Your task to perform on an android device: Open the phone app and click the voicemail tab. Image 0: 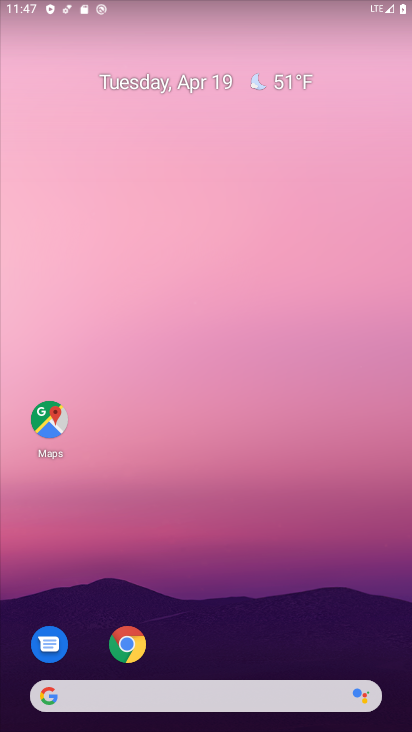
Step 0: click (14, 320)
Your task to perform on an android device: Open the phone app and click the voicemail tab. Image 1: 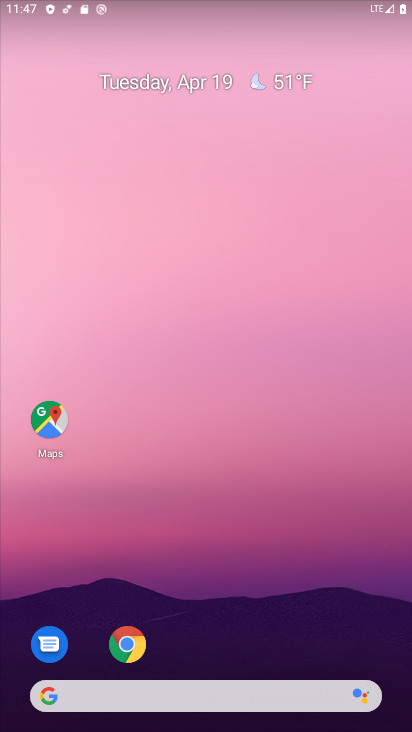
Step 1: drag from (217, 729) to (209, 201)
Your task to perform on an android device: Open the phone app and click the voicemail tab. Image 2: 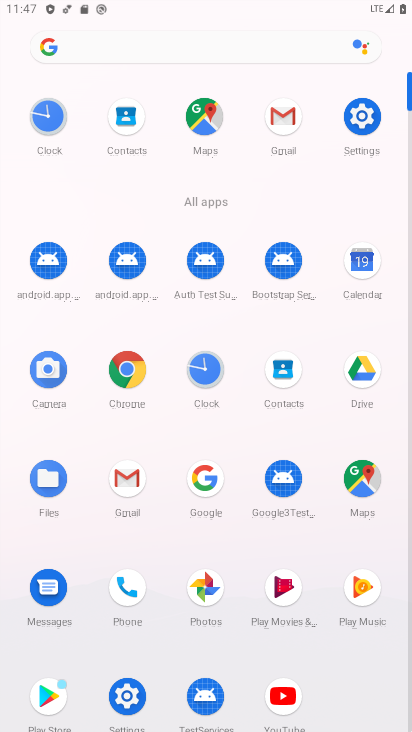
Step 2: click (126, 586)
Your task to perform on an android device: Open the phone app and click the voicemail tab. Image 3: 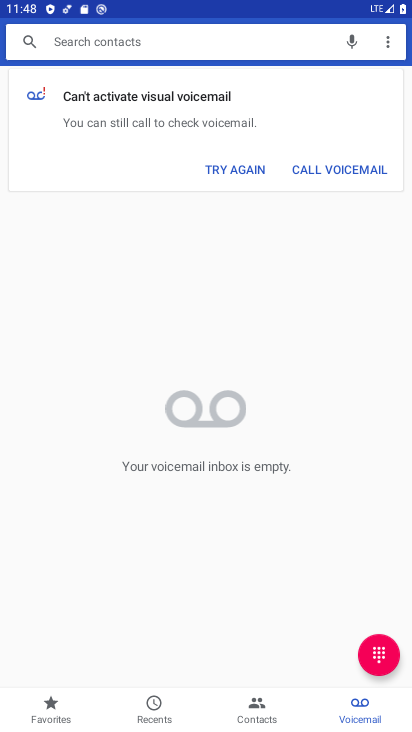
Step 3: task complete